Your task to perform on an android device: turn notification dots off Image 0: 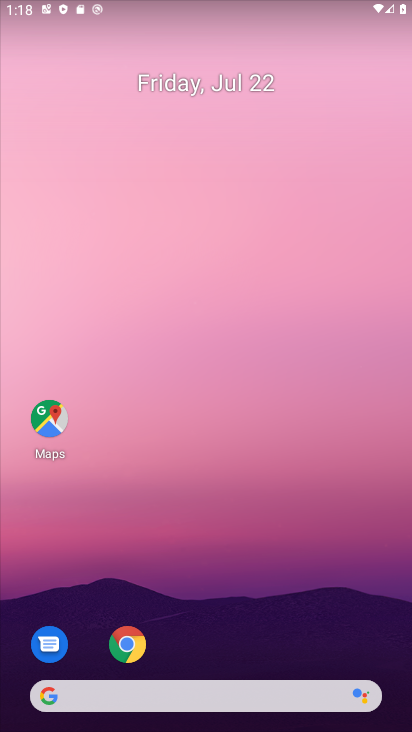
Step 0: drag from (235, 637) to (238, 89)
Your task to perform on an android device: turn notification dots off Image 1: 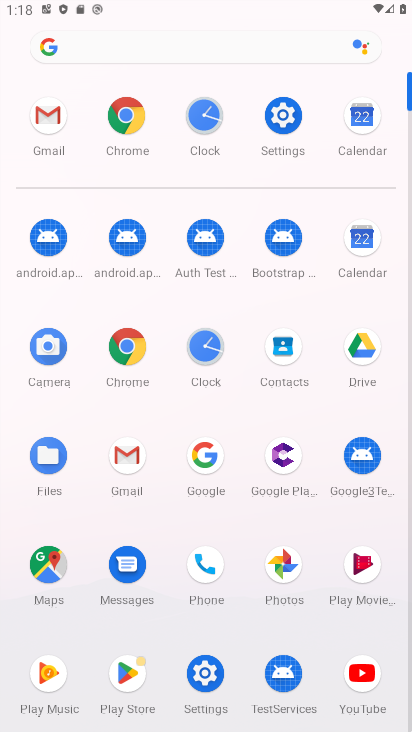
Step 1: click (274, 110)
Your task to perform on an android device: turn notification dots off Image 2: 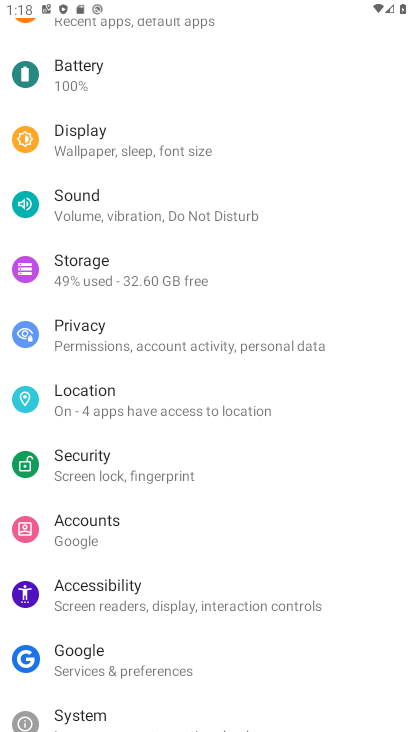
Step 2: drag from (137, 100) to (154, 481)
Your task to perform on an android device: turn notification dots off Image 3: 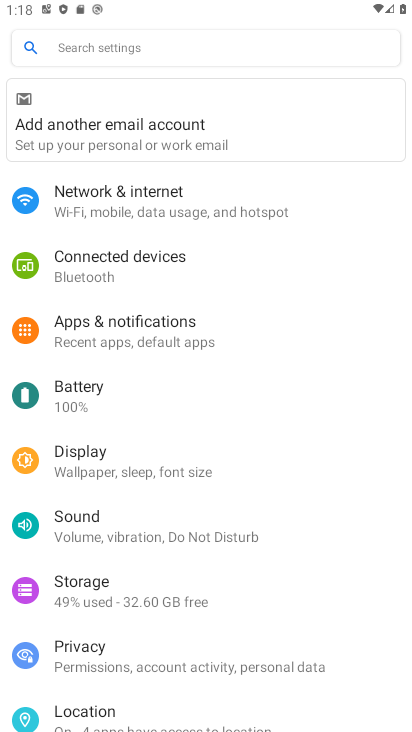
Step 3: click (179, 331)
Your task to perform on an android device: turn notification dots off Image 4: 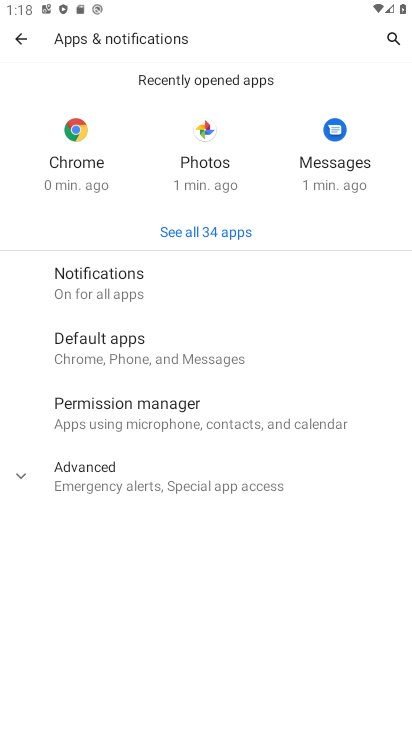
Step 4: click (161, 282)
Your task to perform on an android device: turn notification dots off Image 5: 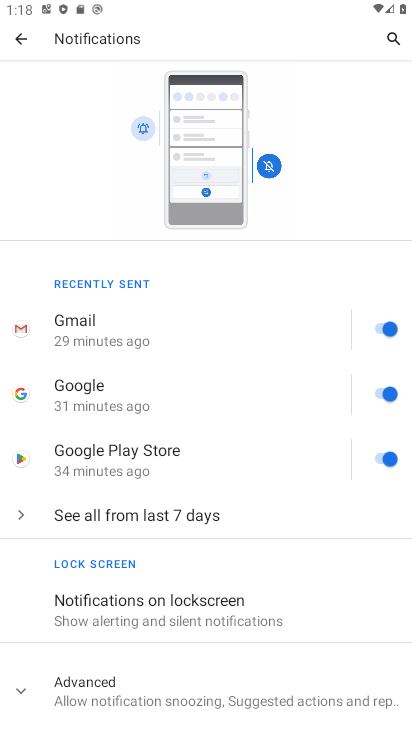
Step 5: drag from (210, 626) to (192, 330)
Your task to perform on an android device: turn notification dots off Image 6: 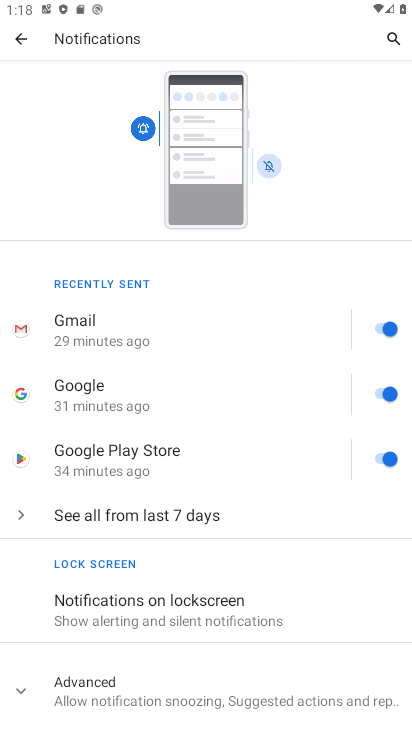
Step 6: click (43, 691)
Your task to perform on an android device: turn notification dots off Image 7: 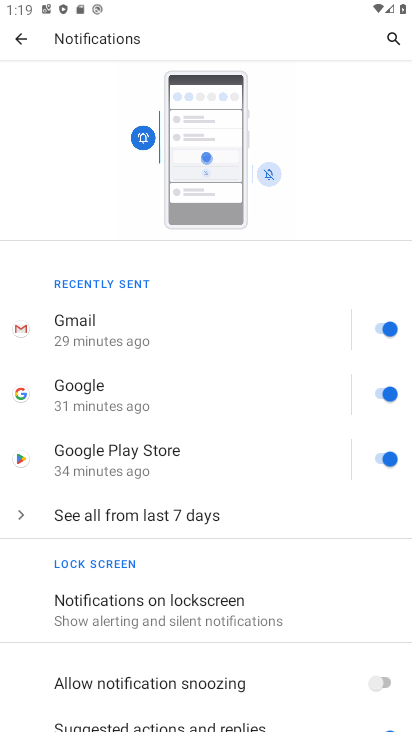
Step 7: drag from (209, 693) to (201, 145)
Your task to perform on an android device: turn notification dots off Image 8: 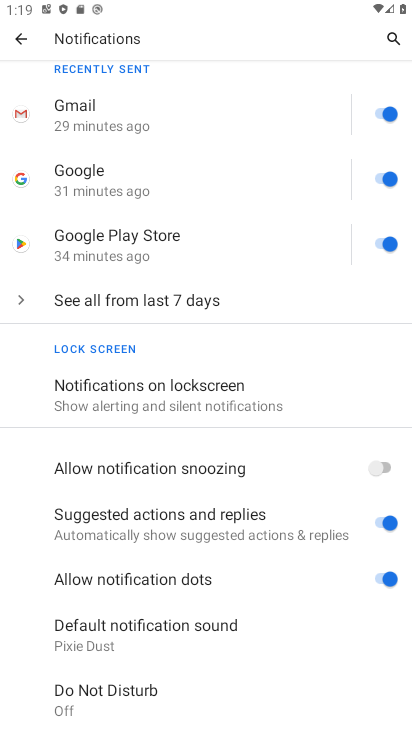
Step 8: click (384, 573)
Your task to perform on an android device: turn notification dots off Image 9: 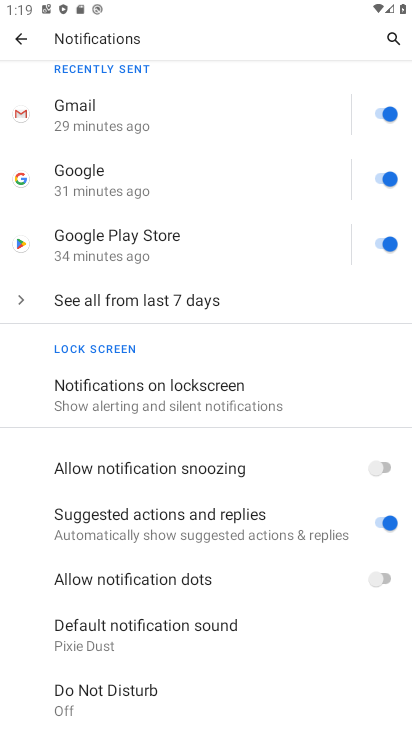
Step 9: task complete